Your task to perform on an android device: Clear all items from cart on target.com. Search for "energizer triple a" on target.com, select the first entry, and add it to the cart. Image 0: 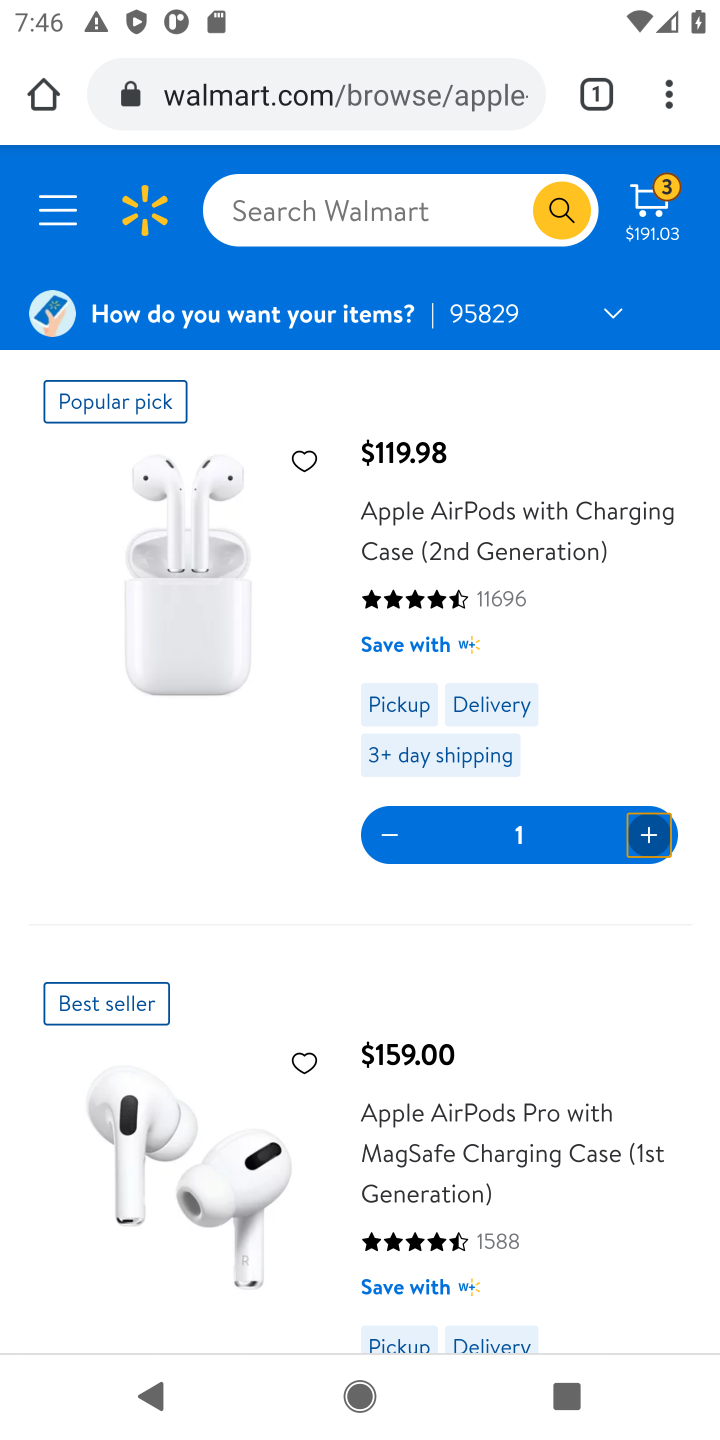
Step 0: click (320, 87)
Your task to perform on an android device: Clear all items from cart on target.com. Search for "energizer triple a" on target.com, select the first entry, and add it to the cart. Image 1: 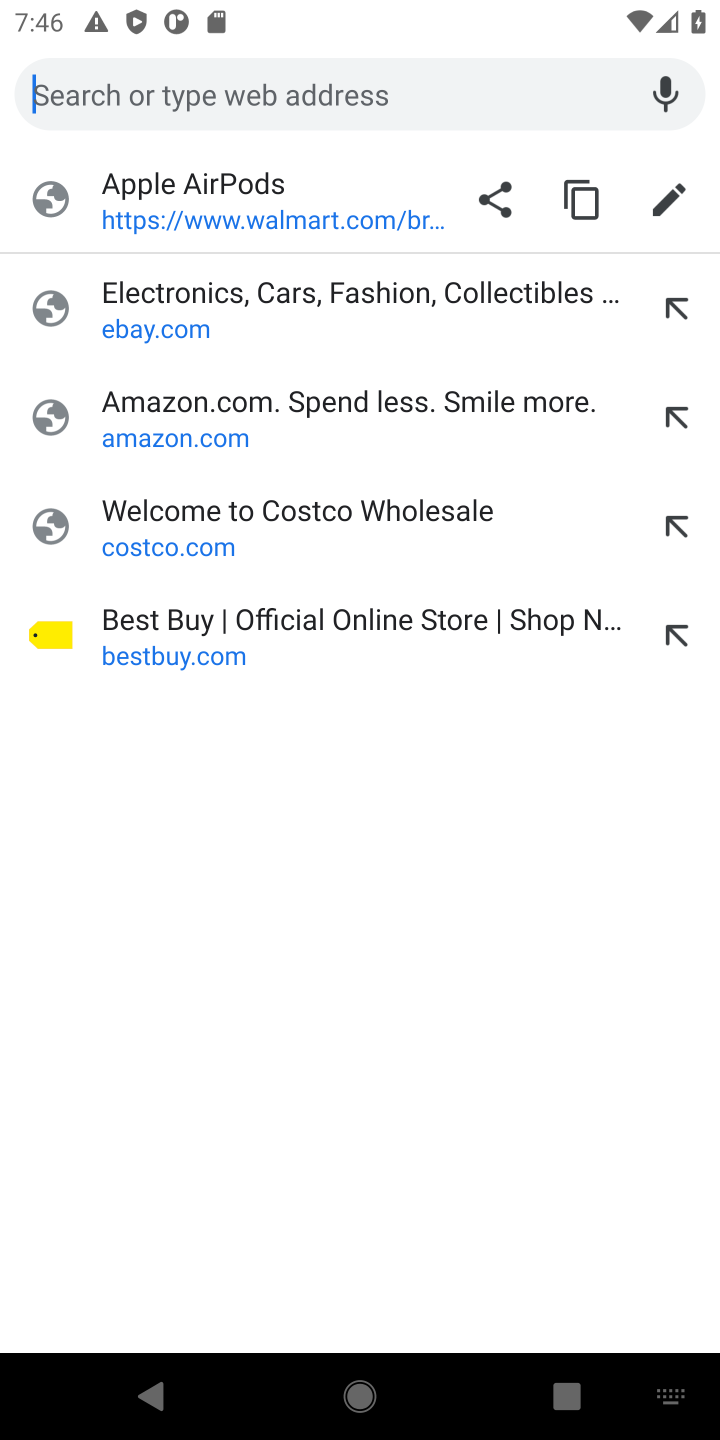
Step 1: type "target.com"
Your task to perform on an android device: Clear all items from cart on target.com. Search for "energizer triple a" on target.com, select the first entry, and add it to the cart. Image 2: 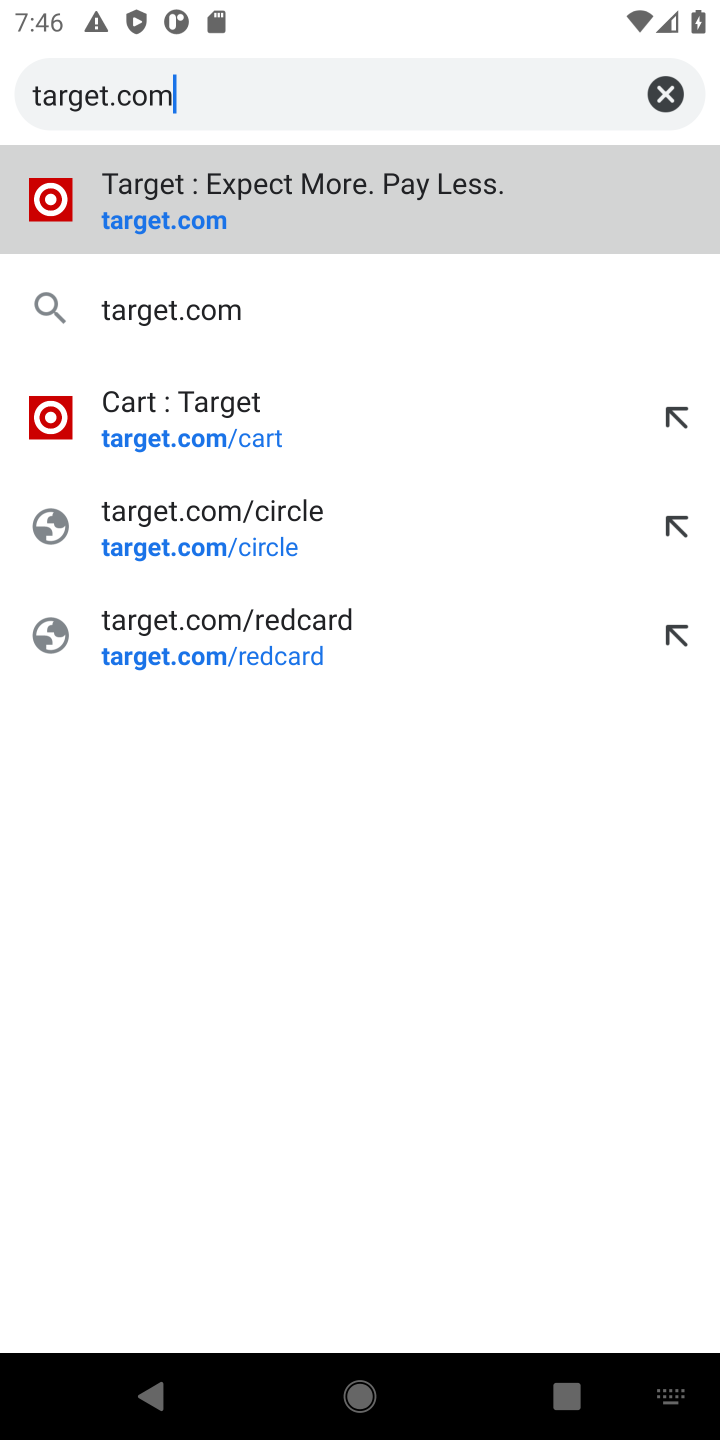
Step 2: click (148, 201)
Your task to perform on an android device: Clear all items from cart on target.com. Search for "energizer triple a" on target.com, select the first entry, and add it to the cart. Image 3: 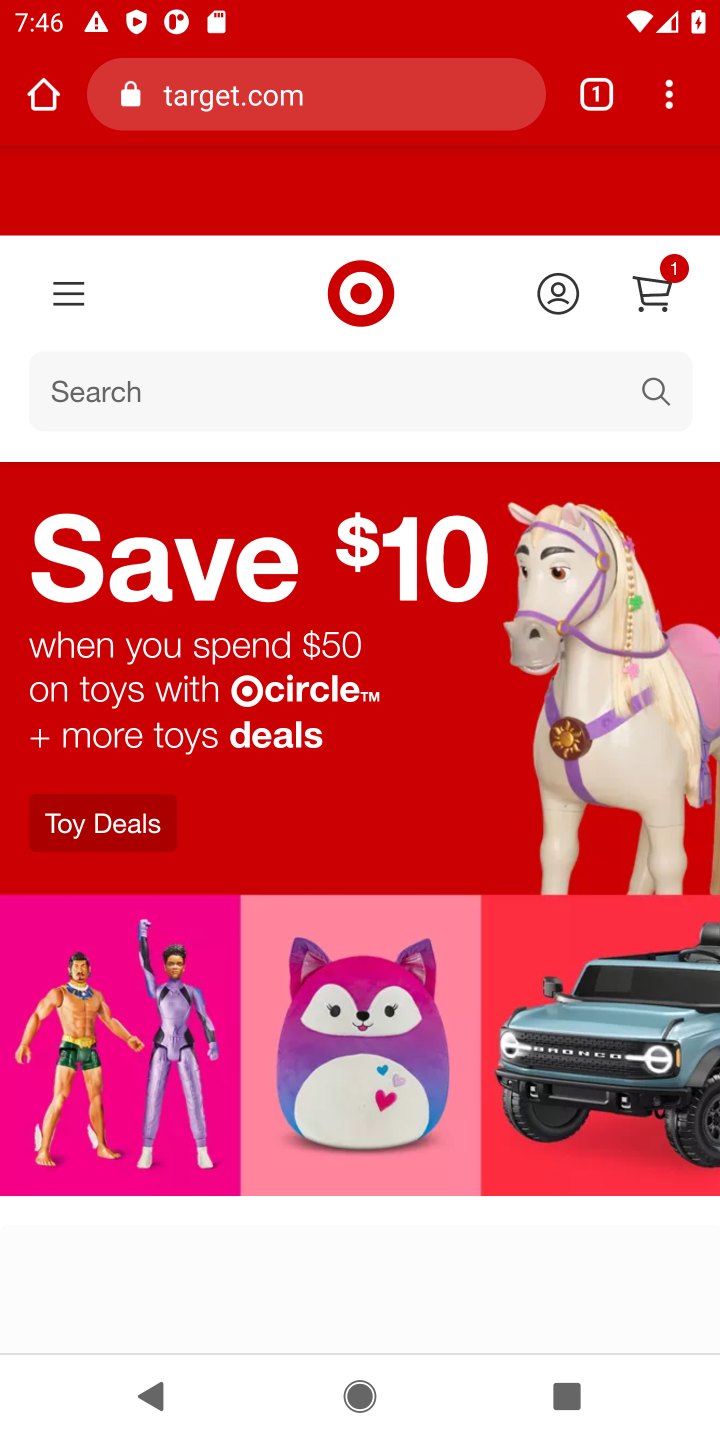
Step 3: click (649, 285)
Your task to perform on an android device: Clear all items from cart on target.com. Search for "energizer triple a" on target.com, select the first entry, and add it to the cart. Image 4: 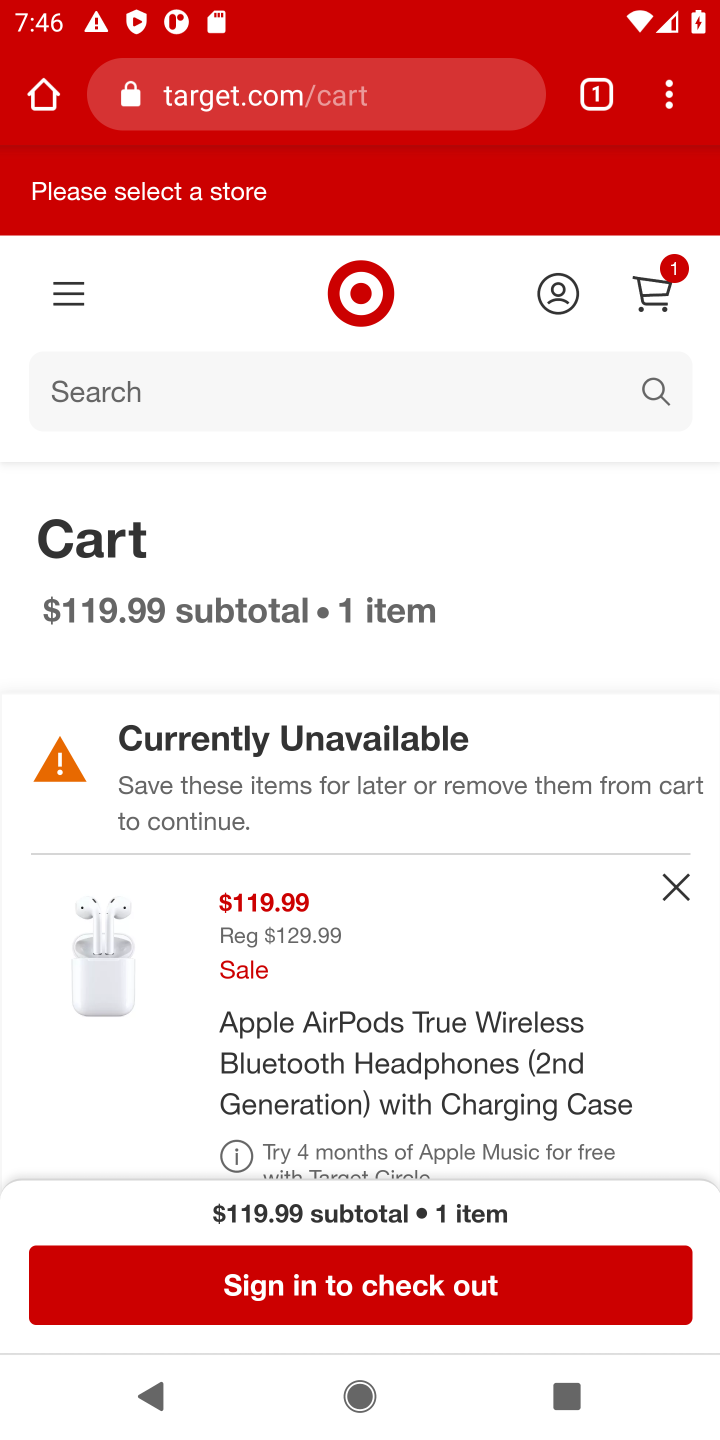
Step 4: click (681, 891)
Your task to perform on an android device: Clear all items from cart on target.com. Search for "energizer triple a" on target.com, select the first entry, and add it to the cart. Image 5: 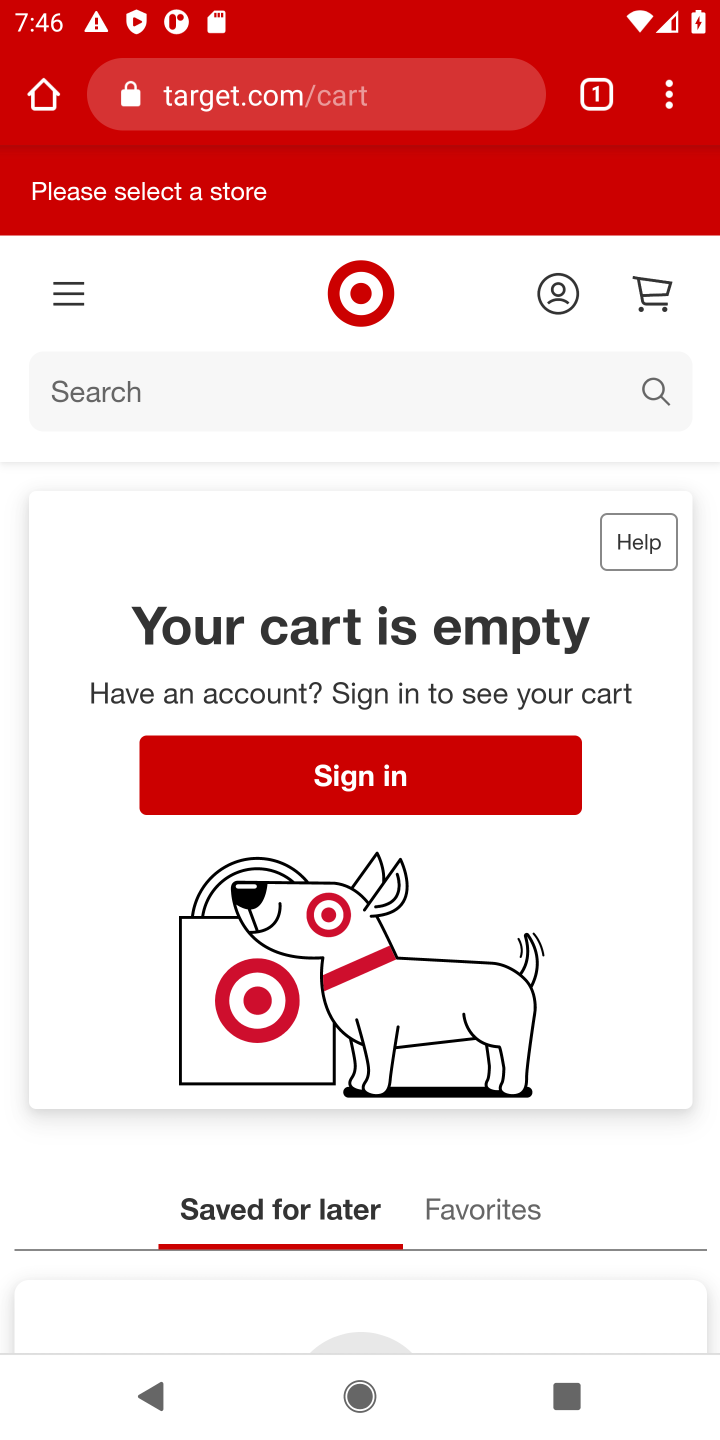
Step 5: click (37, 380)
Your task to perform on an android device: Clear all items from cart on target.com. Search for "energizer triple a" on target.com, select the first entry, and add it to the cart. Image 6: 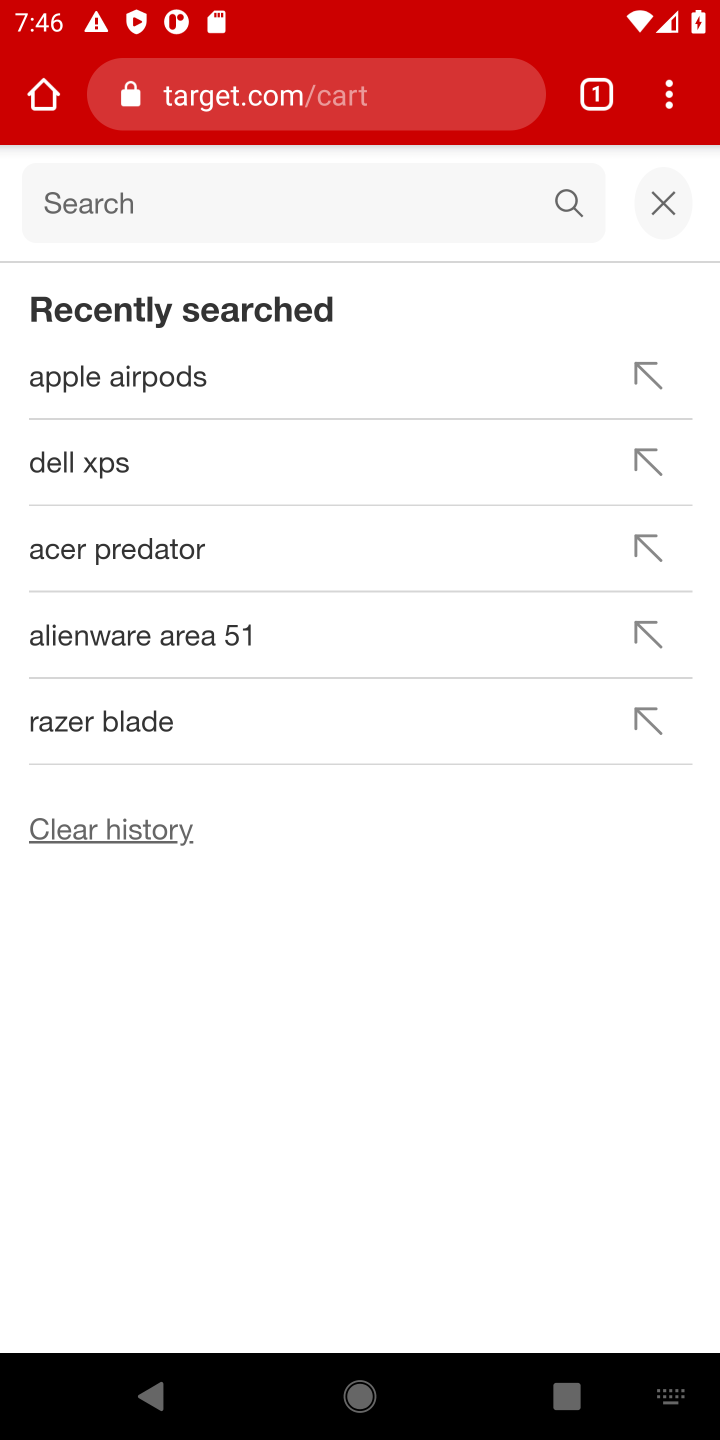
Step 6: type "energizer triple a"
Your task to perform on an android device: Clear all items from cart on target.com. Search for "energizer triple a" on target.com, select the first entry, and add it to the cart. Image 7: 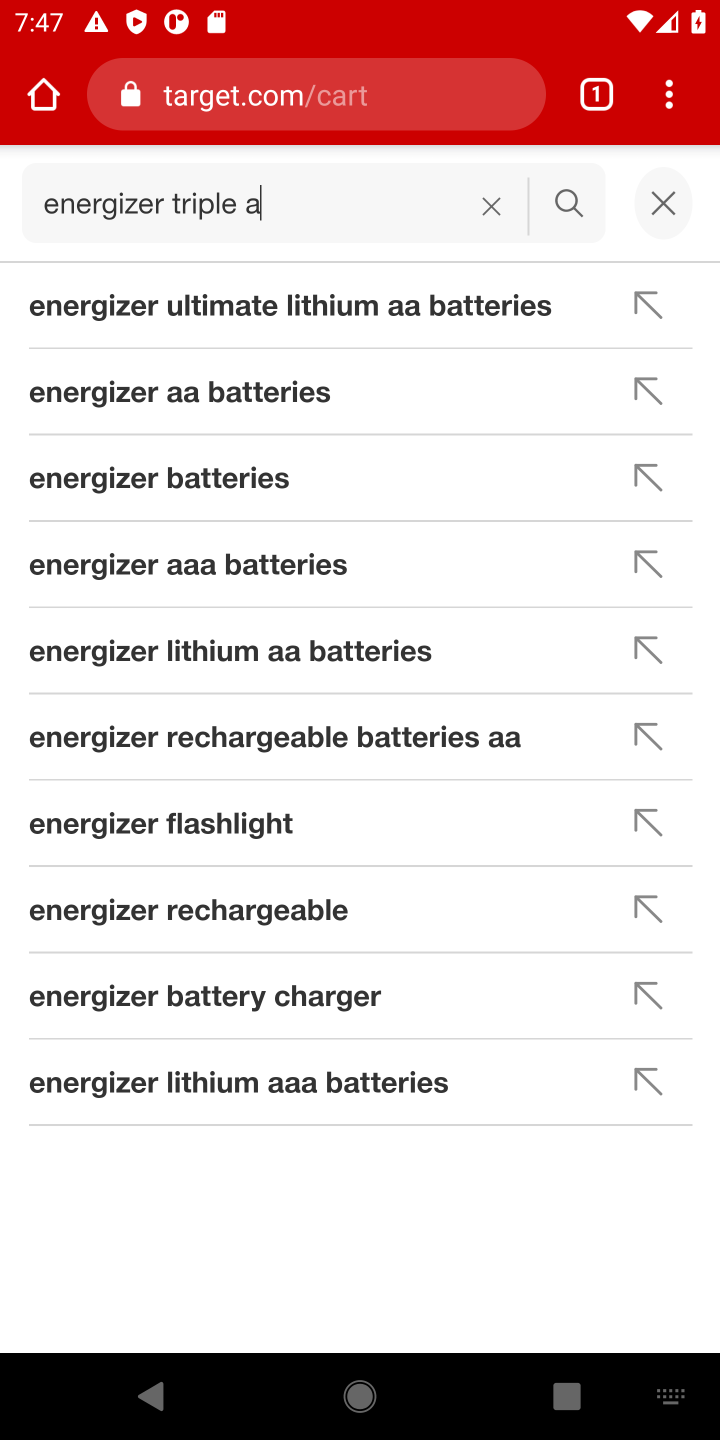
Step 7: click (663, 204)
Your task to perform on an android device: Clear all items from cart on target.com. Search for "energizer triple a" on target.com, select the first entry, and add it to the cart. Image 8: 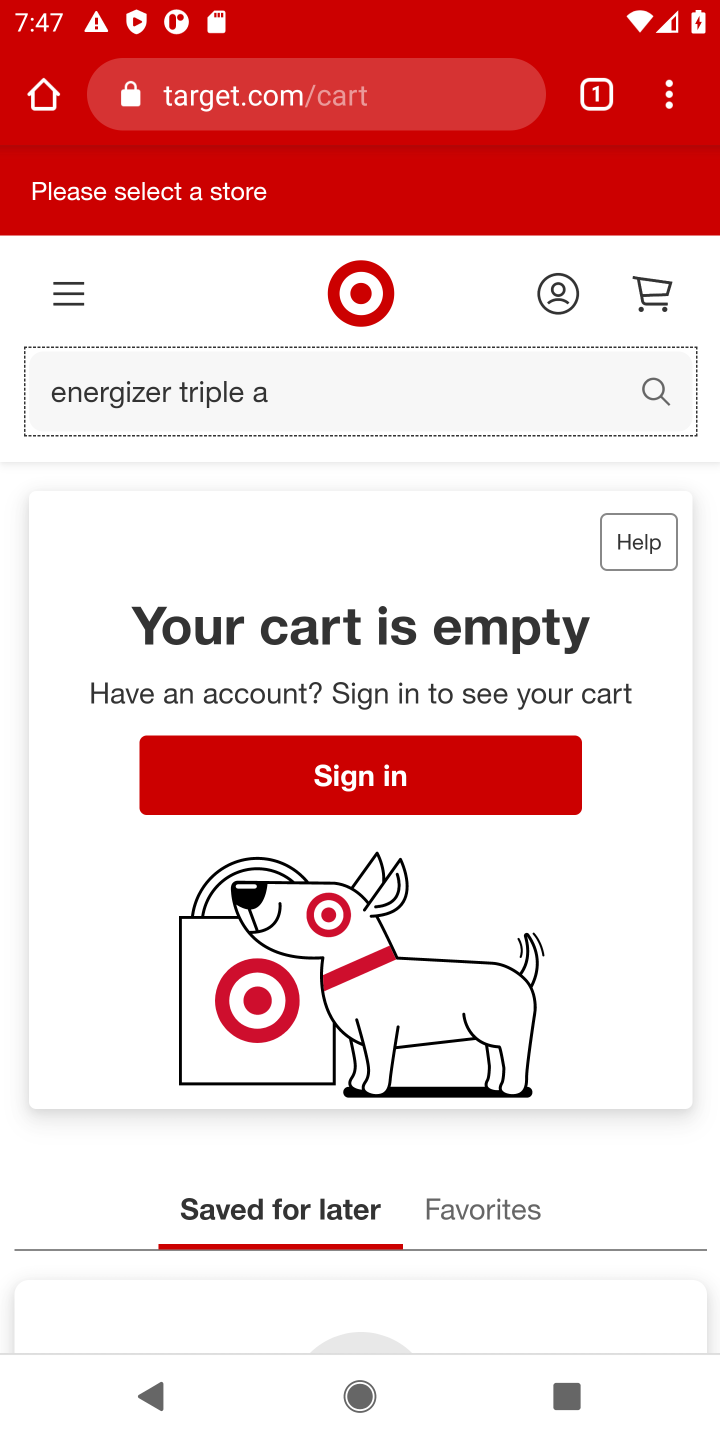
Step 8: click (379, 389)
Your task to perform on an android device: Clear all items from cart on target.com. Search for "energizer triple a" on target.com, select the first entry, and add it to the cart. Image 9: 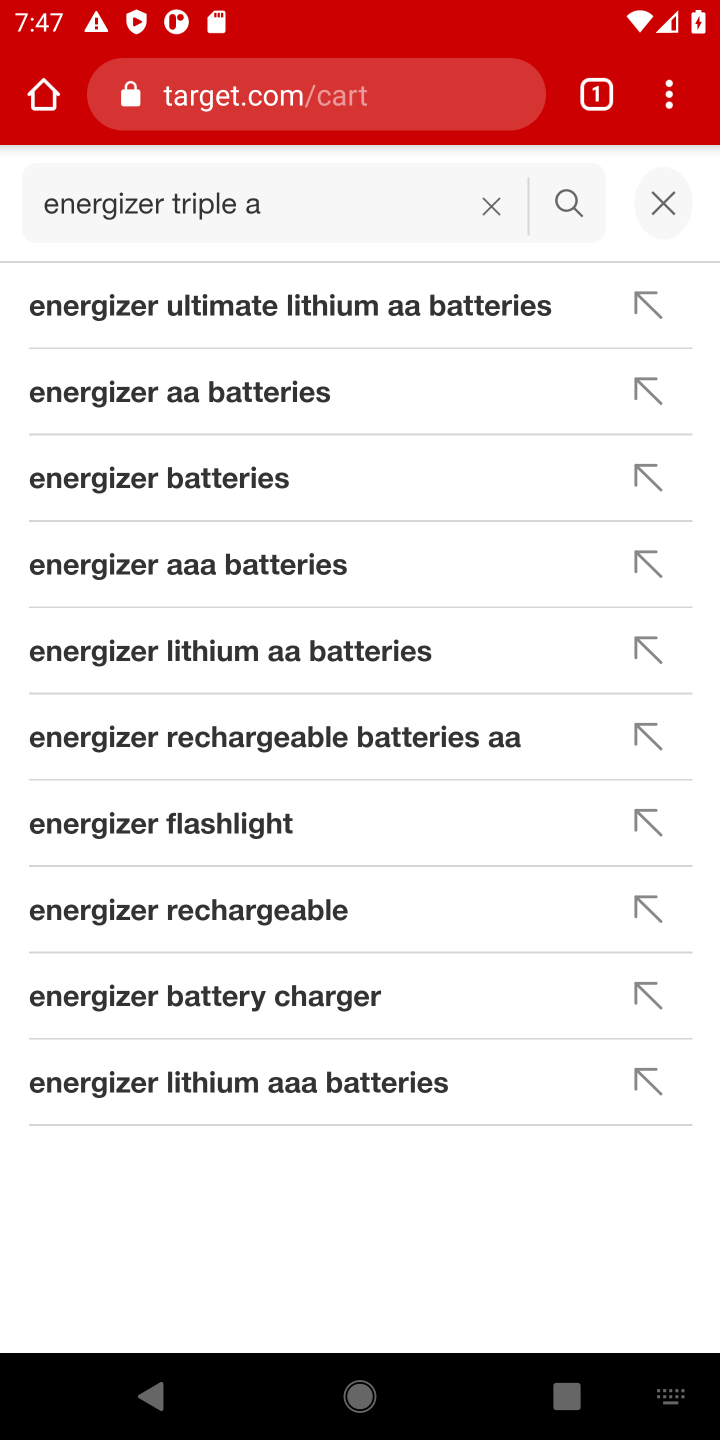
Step 9: click (562, 203)
Your task to perform on an android device: Clear all items from cart on target.com. Search for "energizer triple a" on target.com, select the first entry, and add it to the cart. Image 10: 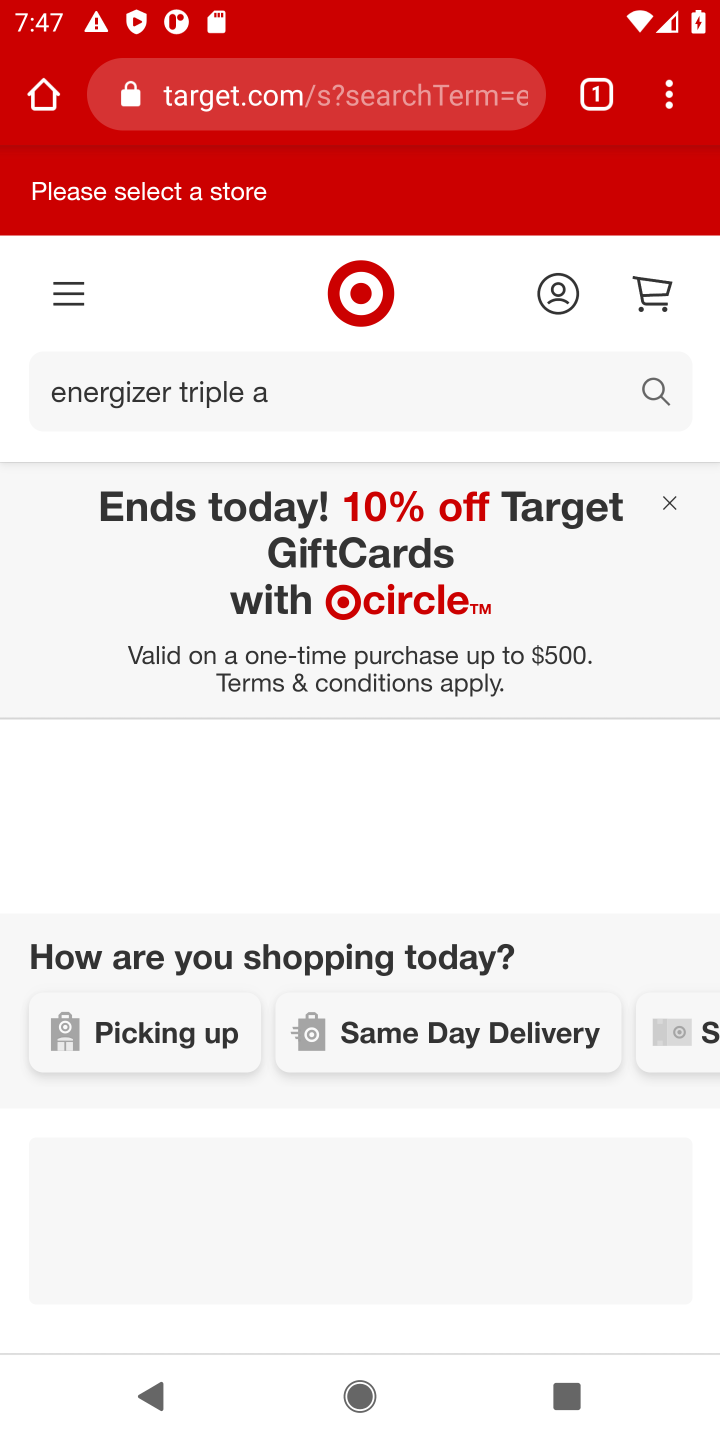
Step 10: task complete